Your task to perform on an android device: Is it going to rain today? Image 0: 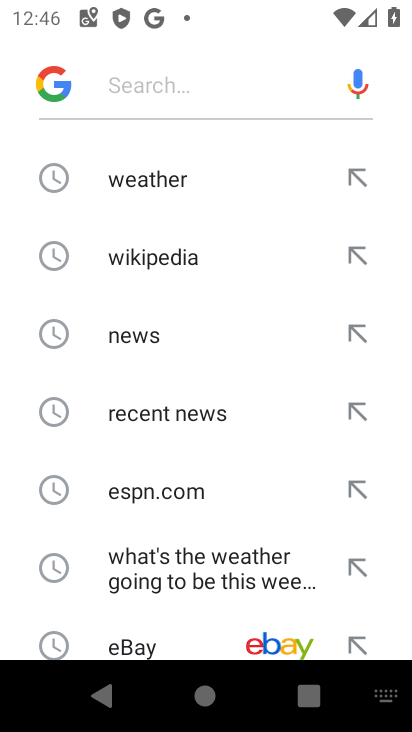
Step 0: press home button
Your task to perform on an android device: Is it going to rain today? Image 1: 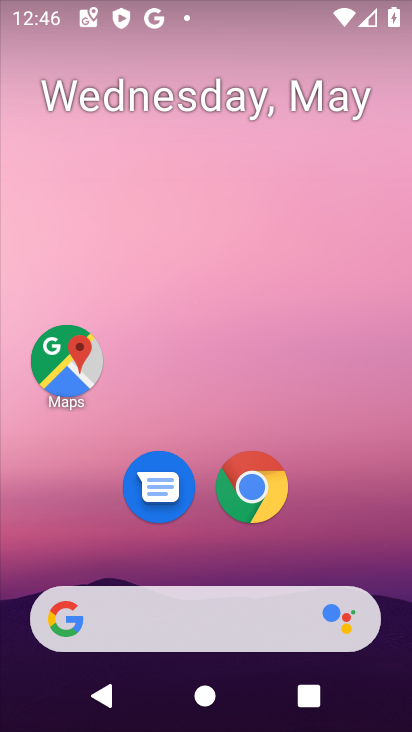
Step 1: click (237, 630)
Your task to perform on an android device: Is it going to rain today? Image 2: 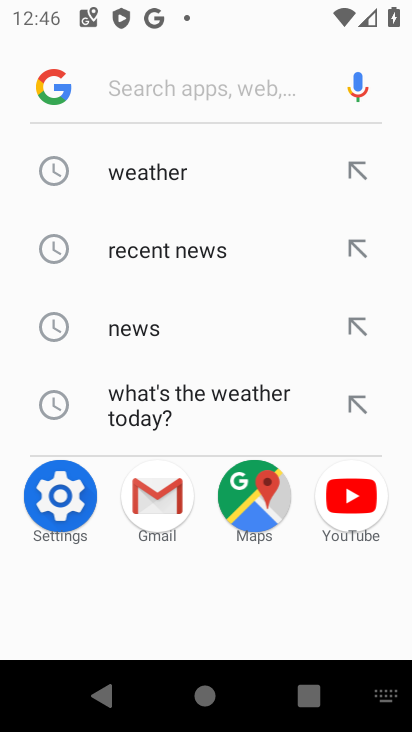
Step 2: click (153, 162)
Your task to perform on an android device: Is it going to rain today? Image 3: 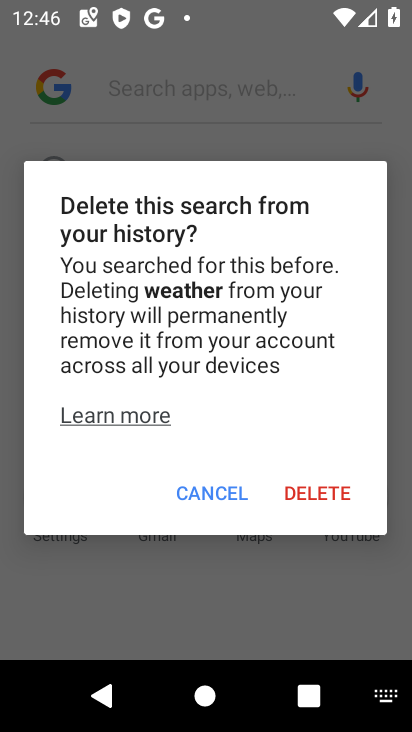
Step 3: click (210, 498)
Your task to perform on an android device: Is it going to rain today? Image 4: 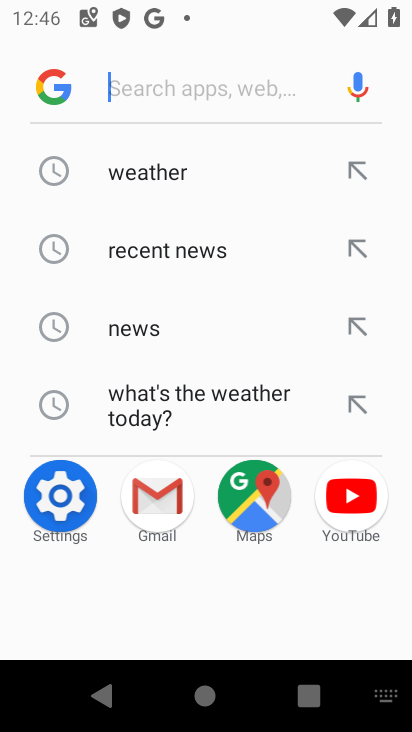
Step 4: click (111, 194)
Your task to perform on an android device: Is it going to rain today? Image 5: 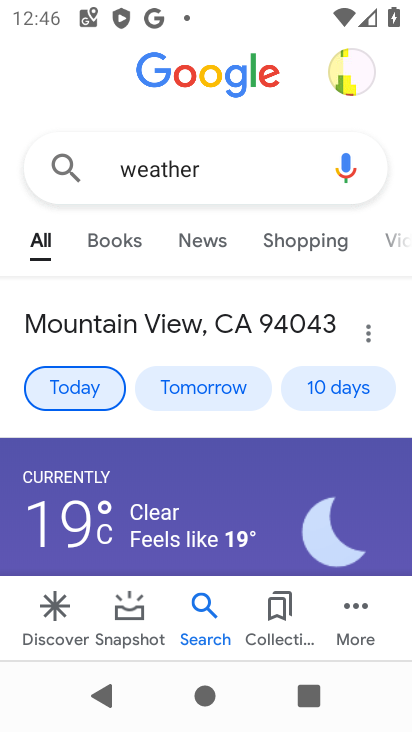
Step 5: task complete